Your task to perform on an android device: move an email to a new category in the gmail app Image 0: 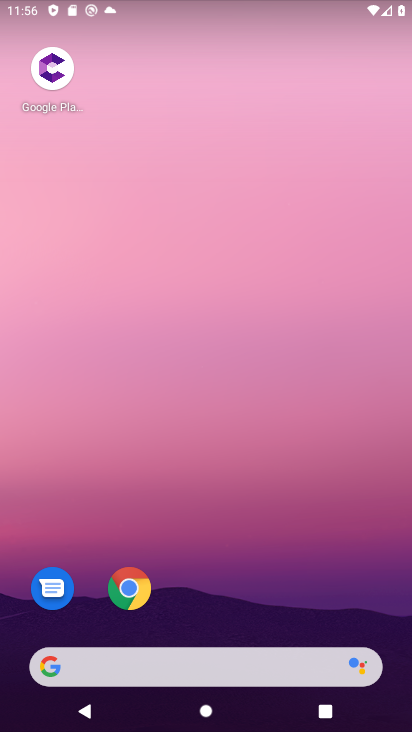
Step 0: drag from (149, 383) to (197, 5)
Your task to perform on an android device: move an email to a new category in the gmail app Image 1: 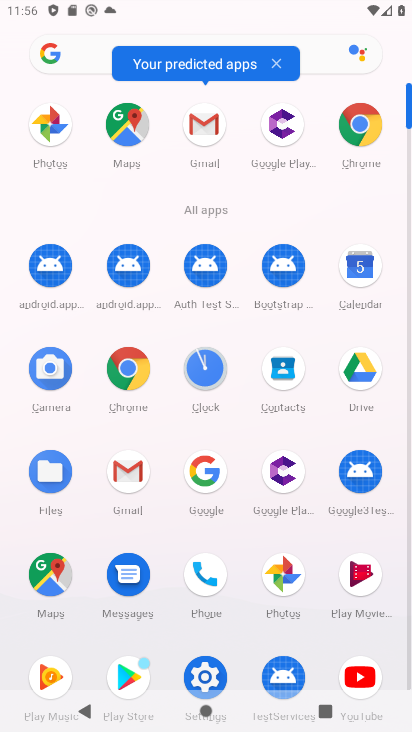
Step 1: click (195, 132)
Your task to perform on an android device: move an email to a new category in the gmail app Image 2: 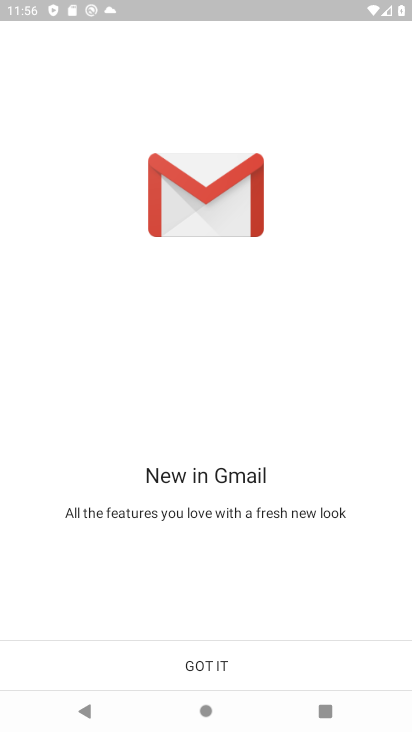
Step 2: click (228, 676)
Your task to perform on an android device: move an email to a new category in the gmail app Image 3: 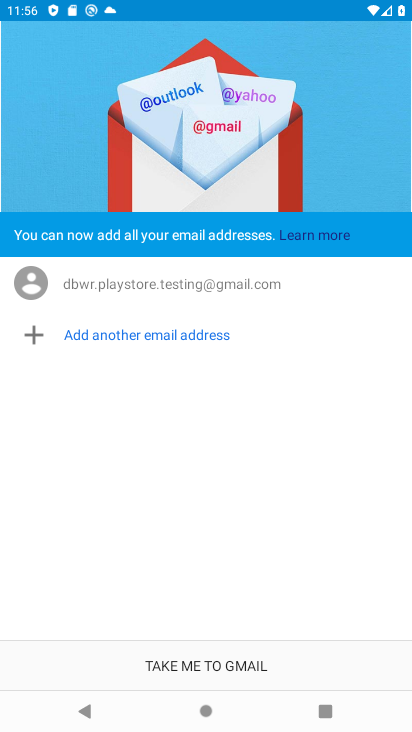
Step 3: click (187, 663)
Your task to perform on an android device: move an email to a new category in the gmail app Image 4: 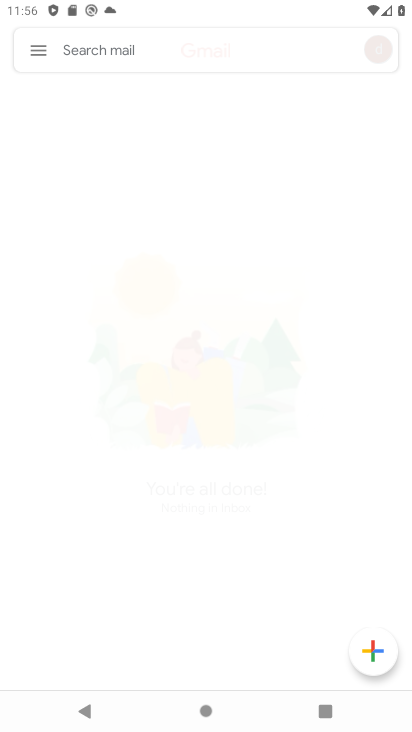
Step 4: click (40, 45)
Your task to perform on an android device: move an email to a new category in the gmail app Image 5: 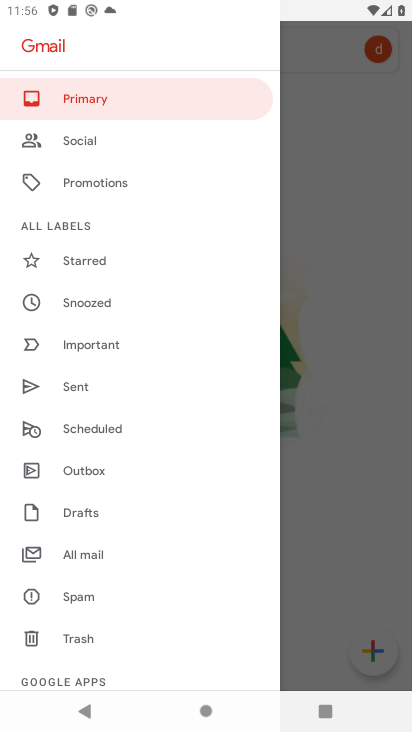
Step 5: click (112, 559)
Your task to perform on an android device: move an email to a new category in the gmail app Image 6: 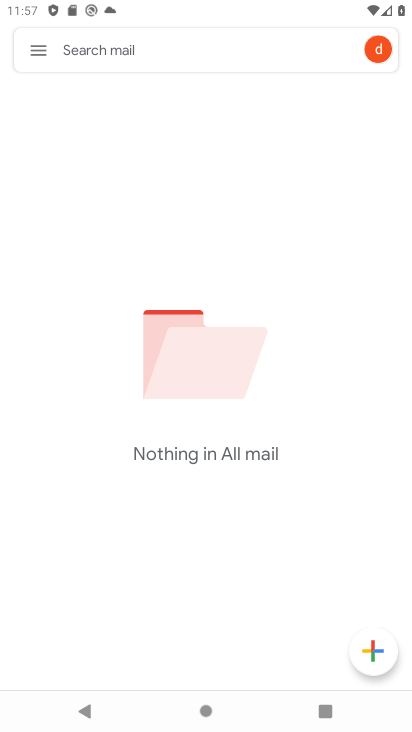
Step 6: task complete